Your task to perform on an android device: open app "Adobe Express: Graphic Design" Image 0: 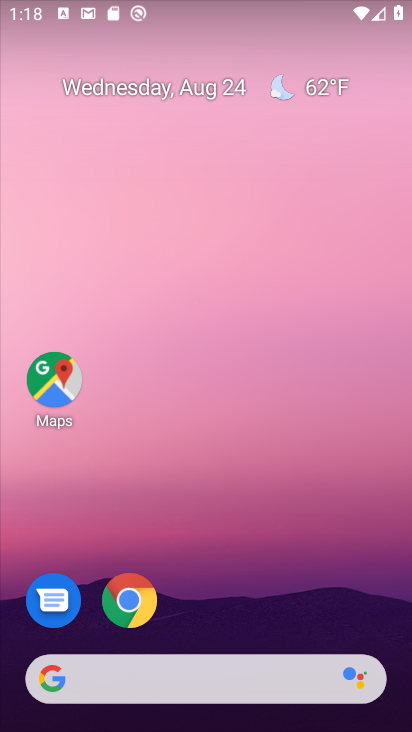
Step 0: drag from (289, 613) to (322, 6)
Your task to perform on an android device: open app "Adobe Express: Graphic Design" Image 1: 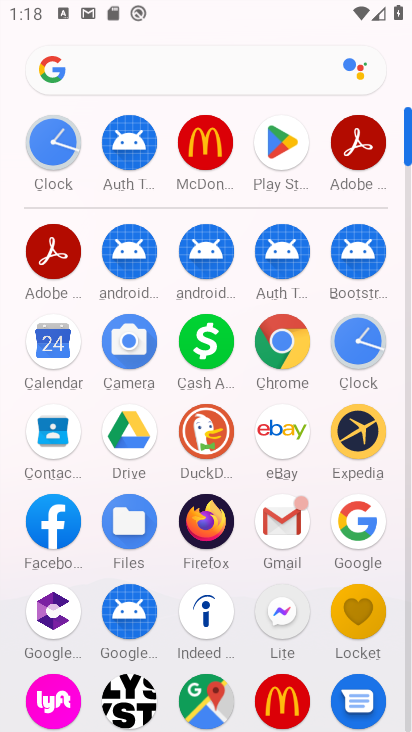
Step 1: click (279, 143)
Your task to perform on an android device: open app "Adobe Express: Graphic Design" Image 2: 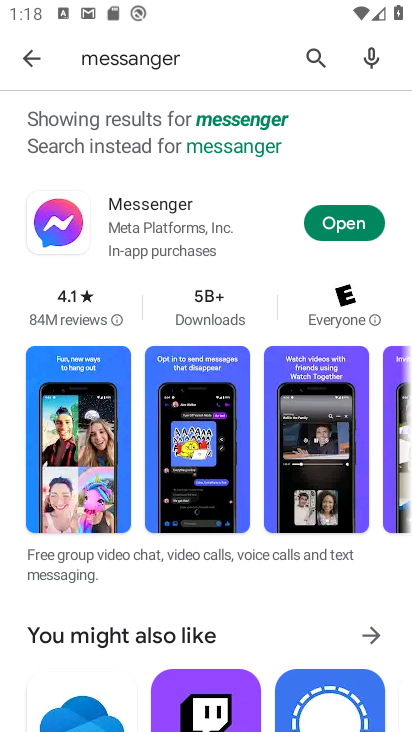
Step 2: click (309, 77)
Your task to perform on an android device: open app "Adobe Express: Graphic Design" Image 3: 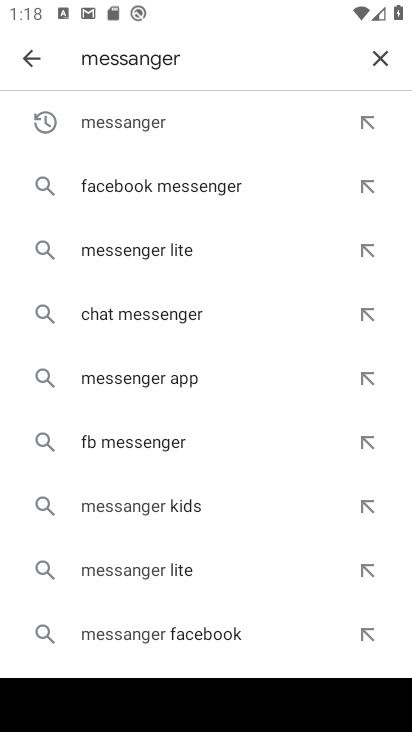
Step 3: click (379, 59)
Your task to perform on an android device: open app "Adobe Express: Graphic Design" Image 4: 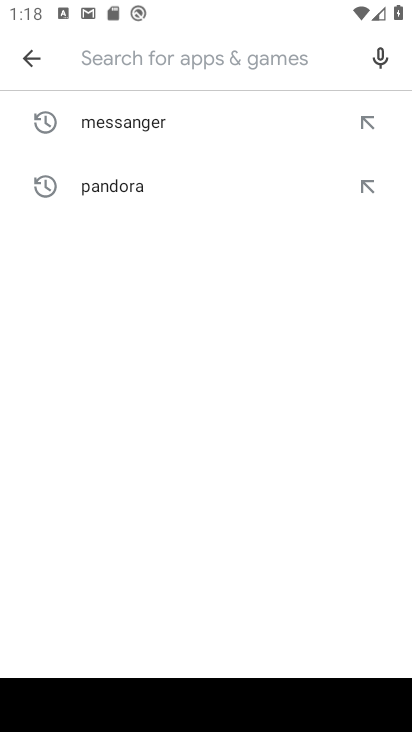
Step 4: type "adobe"
Your task to perform on an android device: open app "Adobe Express: Graphic Design" Image 5: 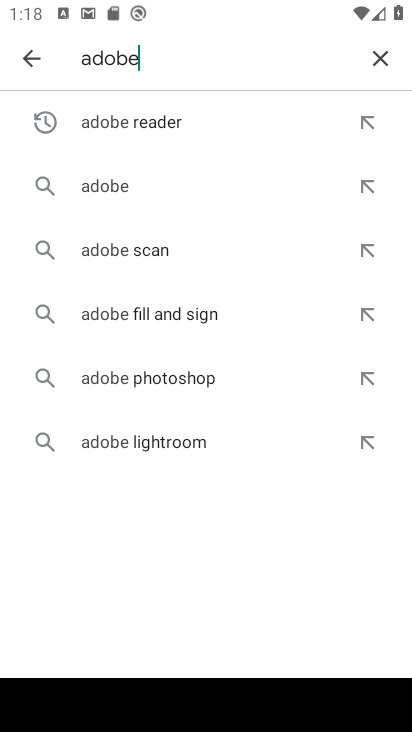
Step 5: click (211, 116)
Your task to perform on an android device: open app "Adobe Express: Graphic Design" Image 6: 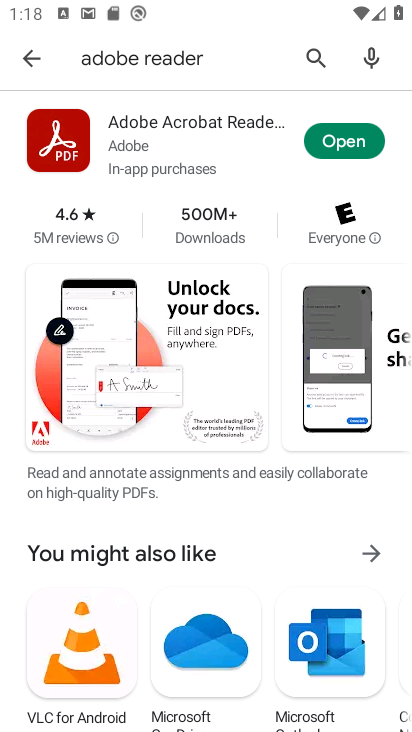
Step 6: click (327, 142)
Your task to perform on an android device: open app "Adobe Express: Graphic Design" Image 7: 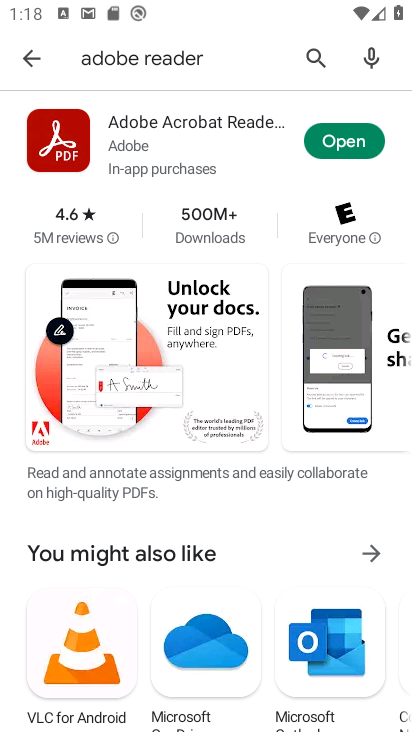
Step 7: task complete